Your task to perform on an android device: change keyboard looks Image 0: 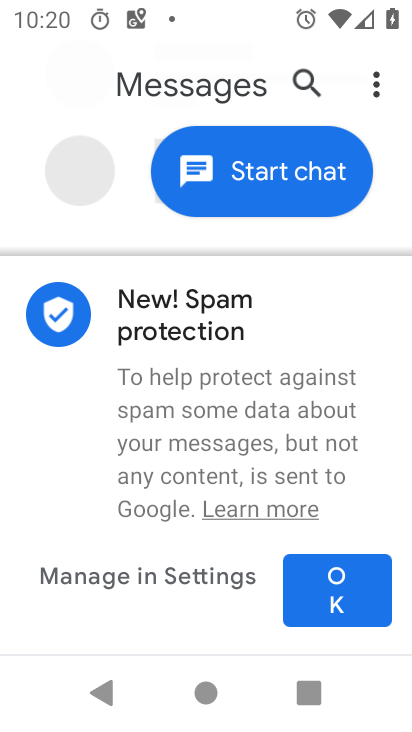
Step 0: press home button
Your task to perform on an android device: change keyboard looks Image 1: 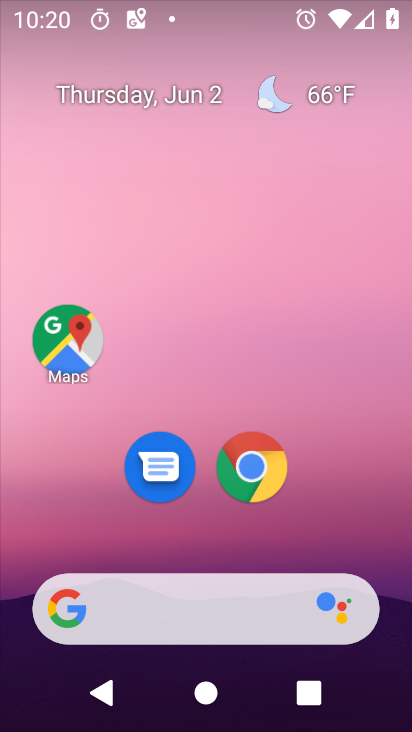
Step 1: drag from (54, 353) to (202, 128)
Your task to perform on an android device: change keyboard looks Image 2: 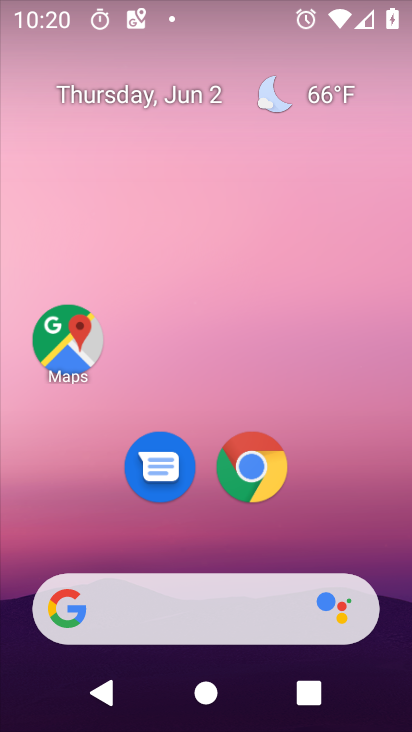
Step 2: drag from (14, 608) to (269, 163)
Your task to perform on an android device: change keyboard looks Image 3: 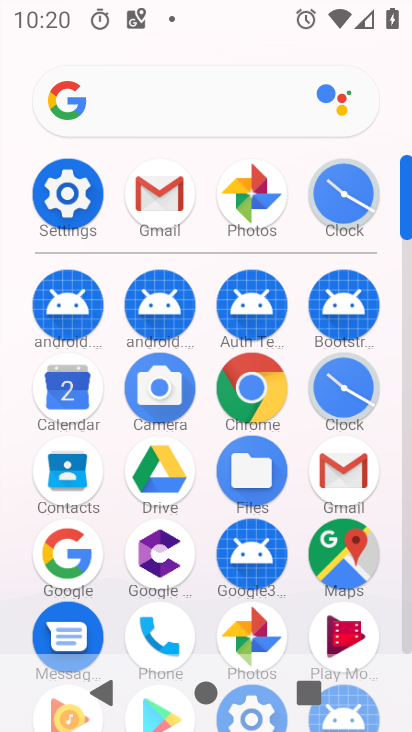
Step 3: click (67, 203)
Your task to perform on an android device: change keyboard looks Image 4: 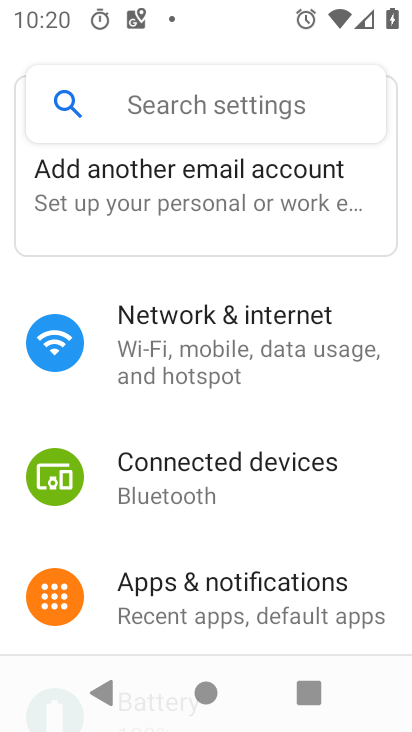
Step 4: task complete